Your task to perform on an android device: Open Android settings Image 0: 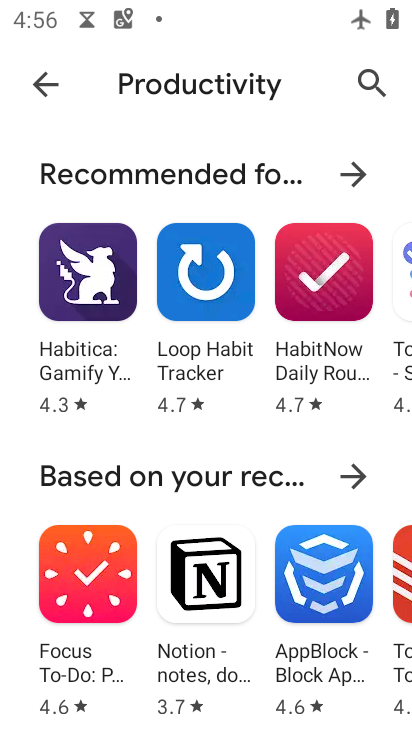
Step 0: press home button
Your task to perform on an android device: Open Android settings Image 1: 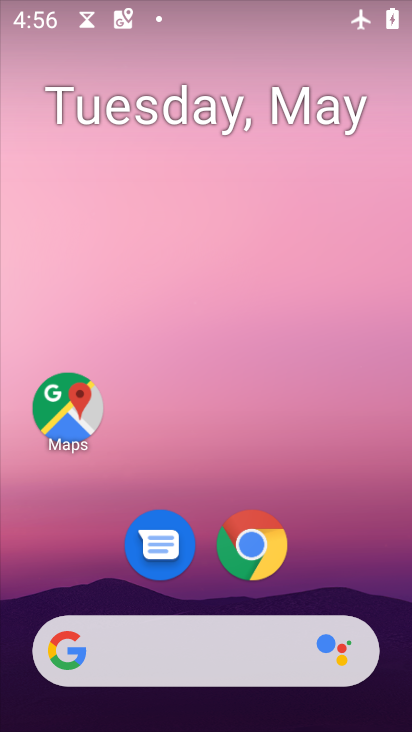
Step 1: drag from (322, 557) to (281, 194)
Your task to perform on an android device: Open Android settings Image 2: 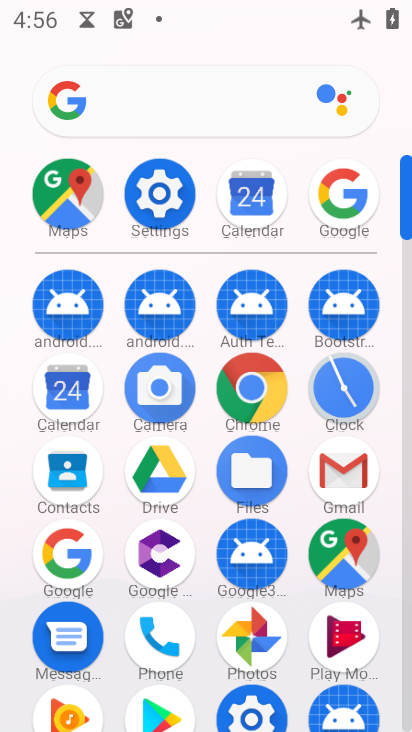
Step 2: click (158, 194)
Your task to perform on an android device: Open Android settings Image 3: 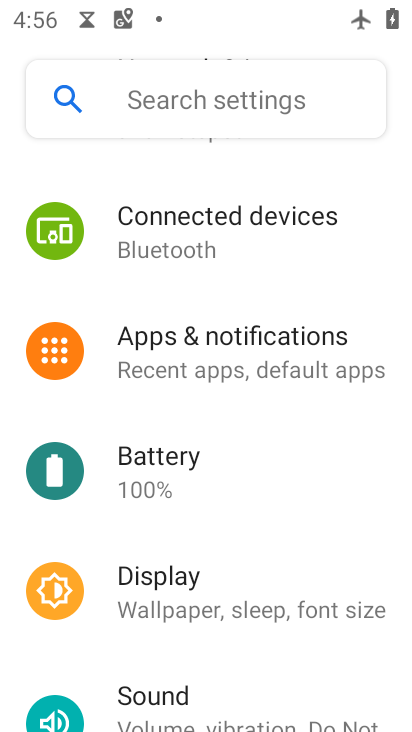
Step 3: task complete